Your task to perform on an android device: Show me recent news Image 0: 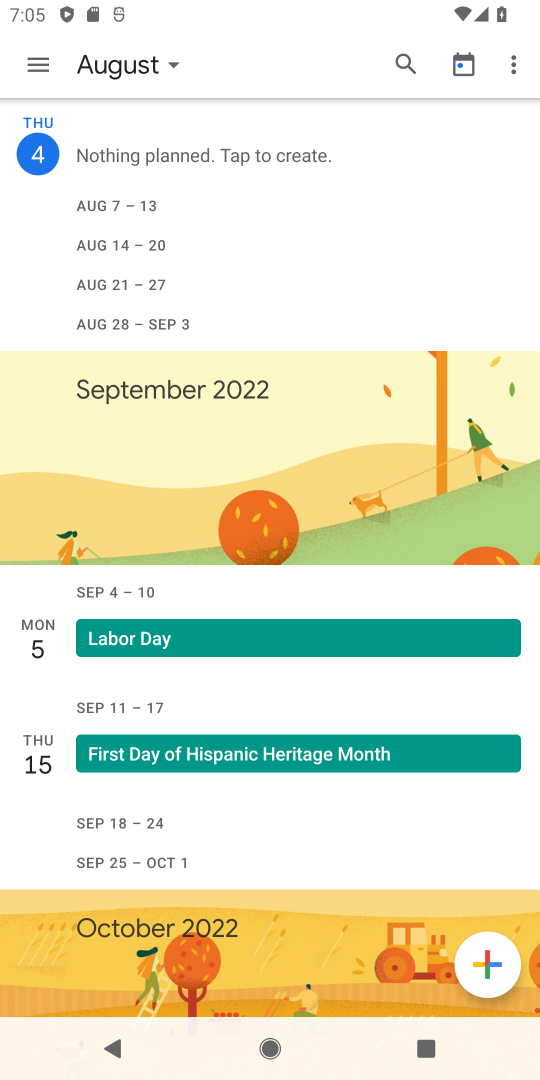
Step 0: press home button
Your task to perform on an android device: Show me recent news Image 1: 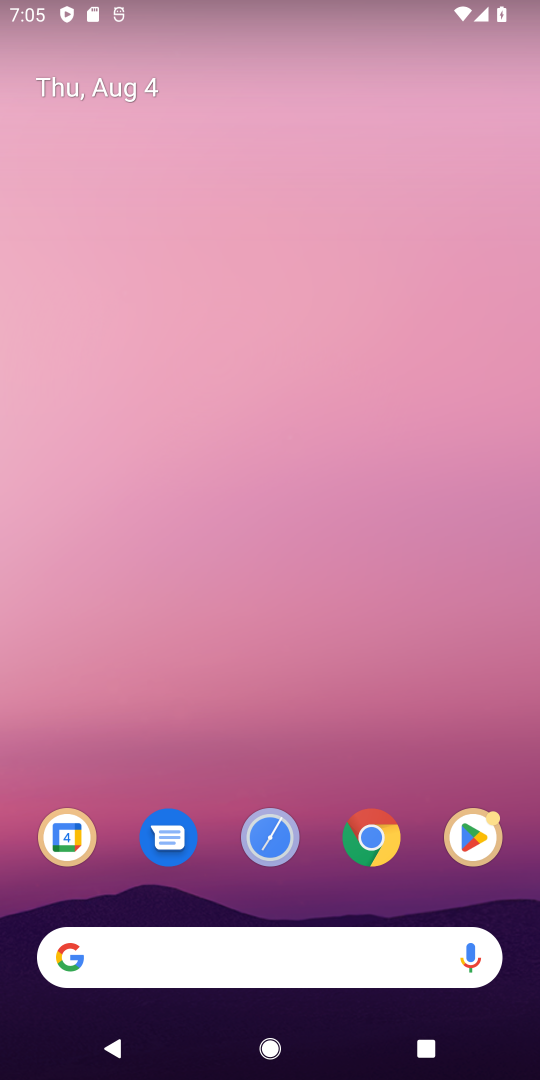
Step 1: drag from (269, 706) to (258, 220)
Your task to perform on an android device: Show me recent news Image 2: 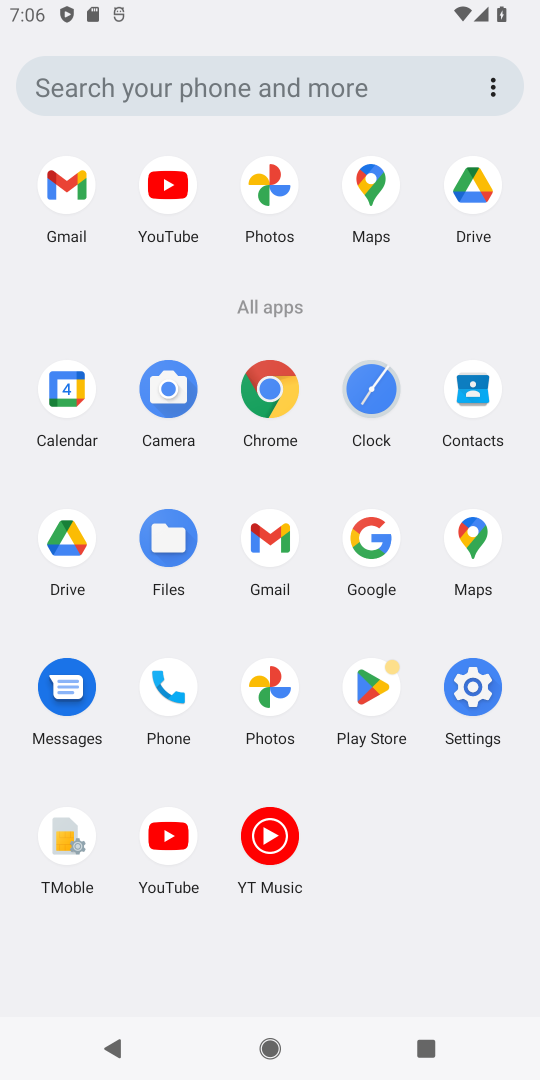
Step 2: click (271, 391)
Your task to perform on an android device: Show me recent news Image 3: 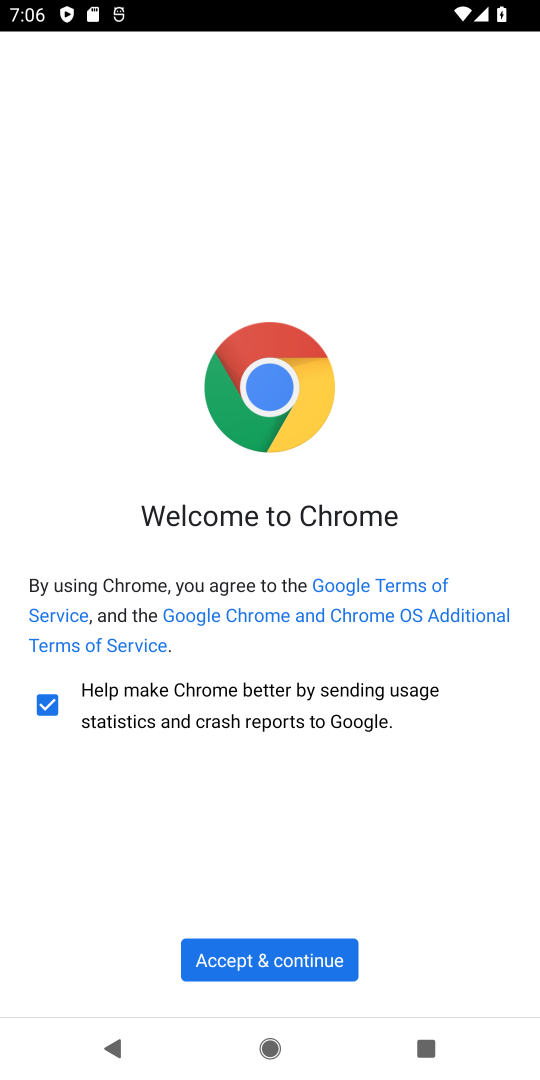
Step 3: click (243, 953)
Your task to perform on an android device: Show me recent news Image 4: 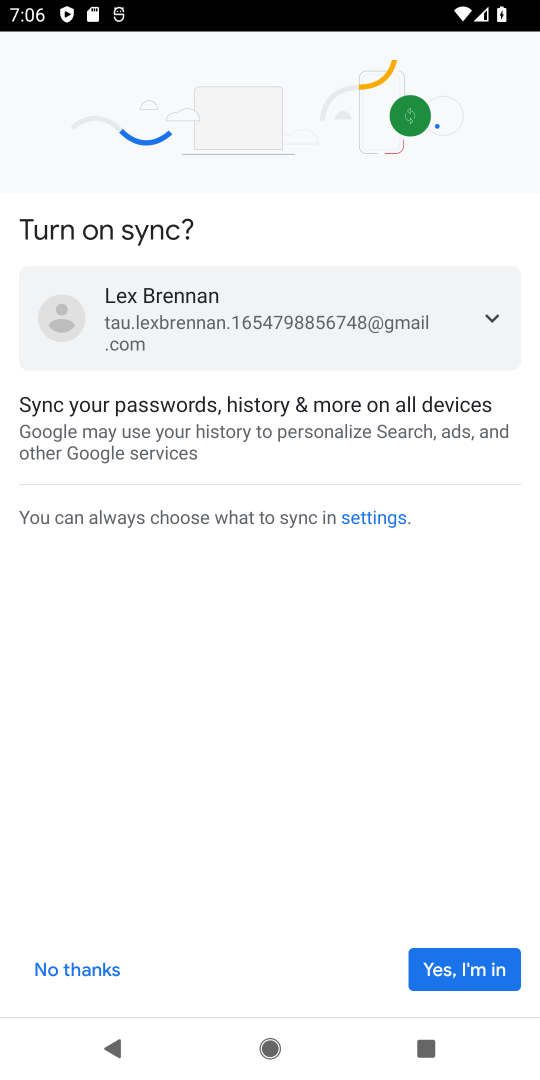
Step 4: click (450, 971)
Your task to perform on an android device: Show me recent news Image 5: 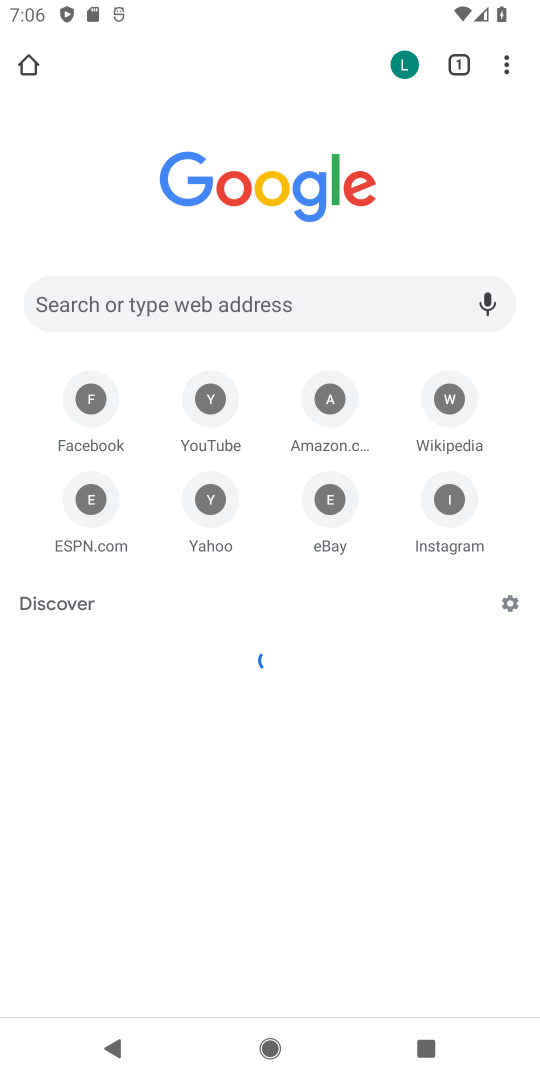
Step 5: click (217, 312)
Your task to perform on an android device: Show me recent news Image 6: 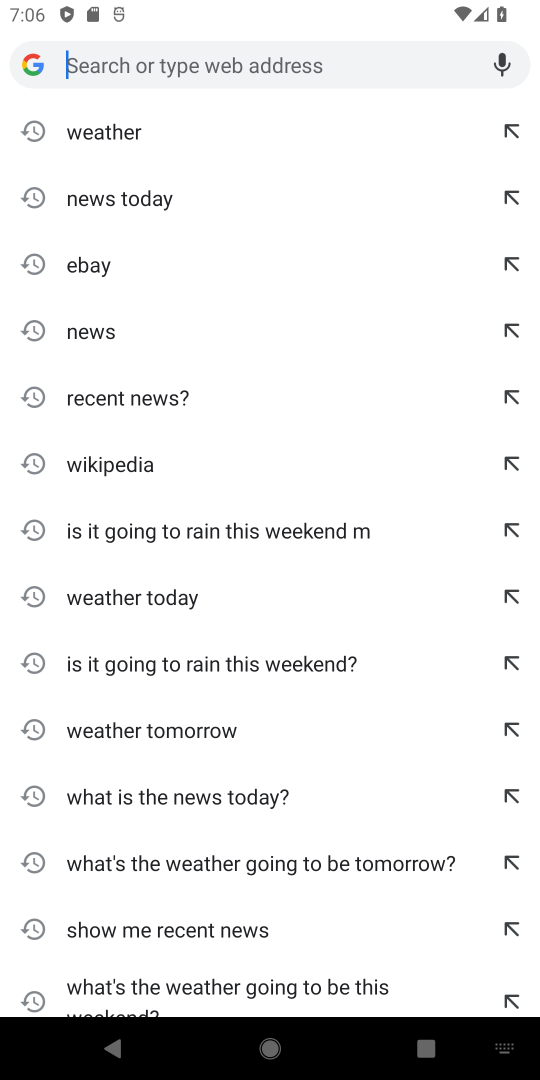
Step 6: type " recent news"
Your task to perform on an android device: Show me recent news Image 7: 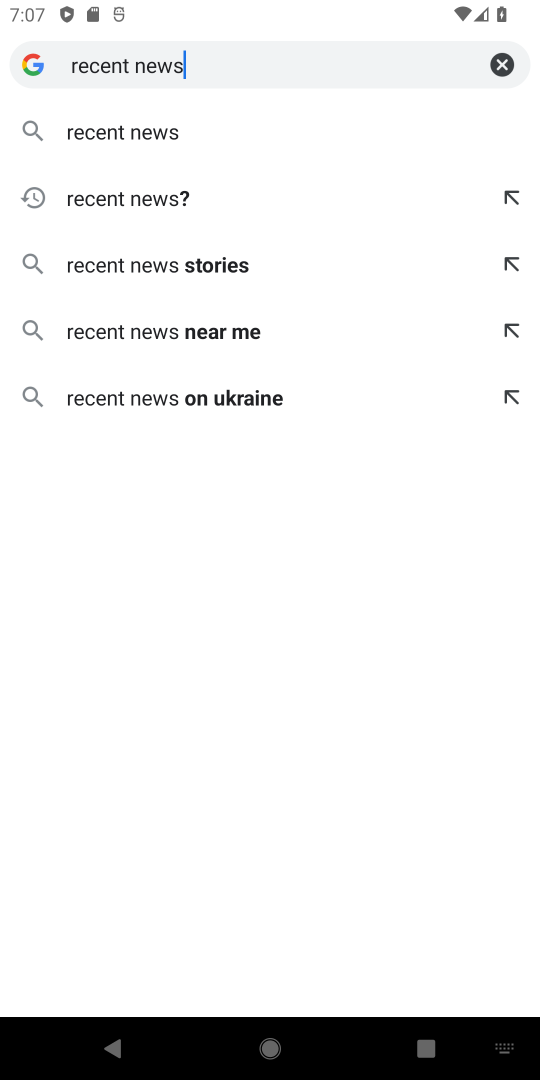
Step 7: press enter
Your task to perform on an android device: Show me recent news Image 8: 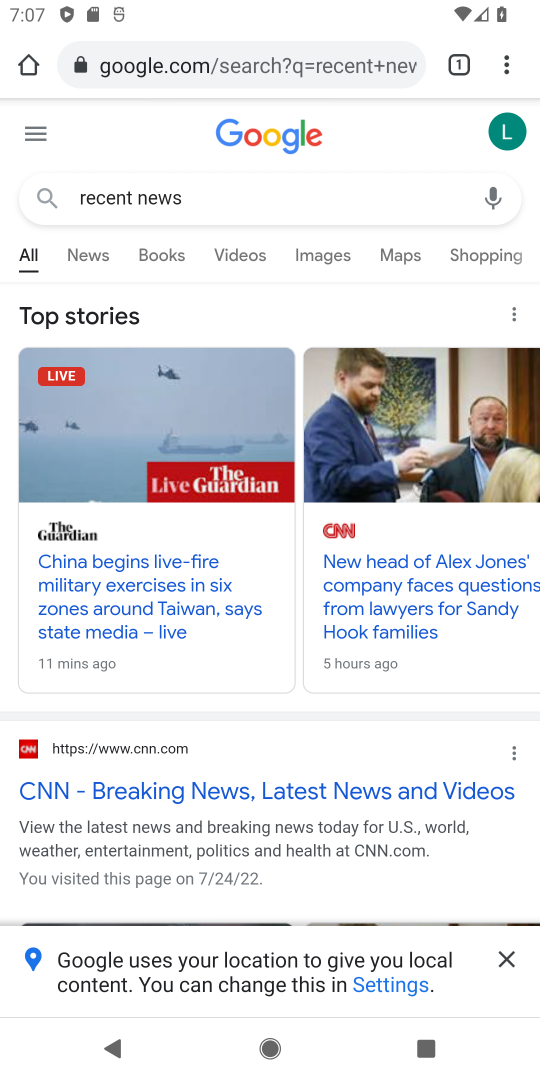
Step 8: task complete